Your task to perform on an android device: clear history in the chrome app Image 0: 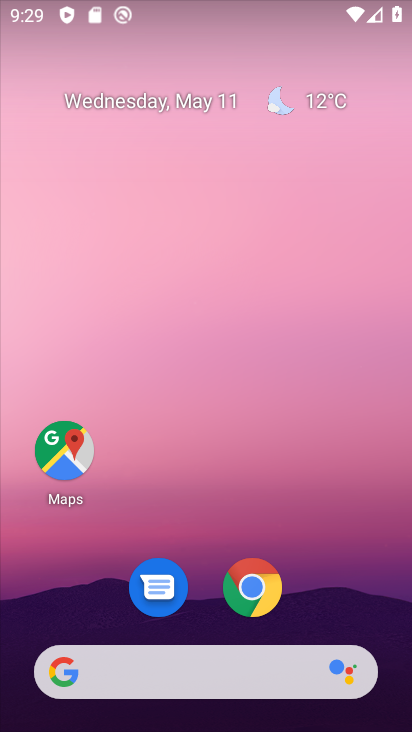
Step 0: click (260, 593)
Your task to perform on an android device: clear history in the chrome app Image 1: 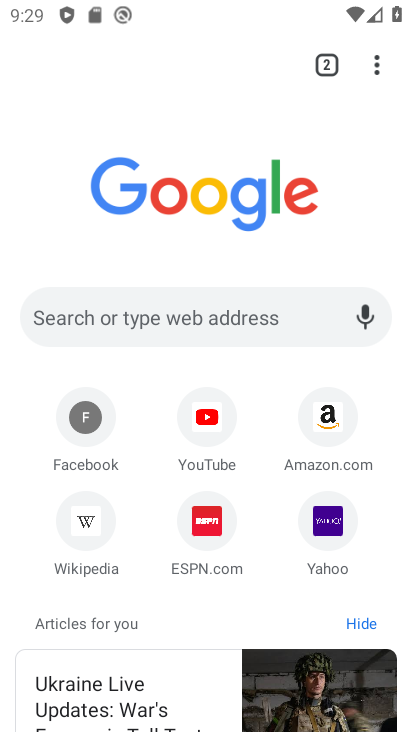
Step 1: click (381, 69)
Your task to perform on an android device: clear history in the chrome app Image 2: 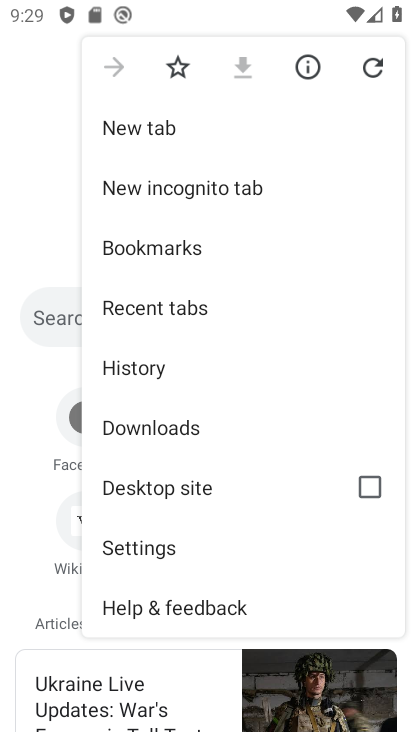
Step 2: click (153, 547)
Your task to perform on an android device: clear history in the chrome app Image 3: 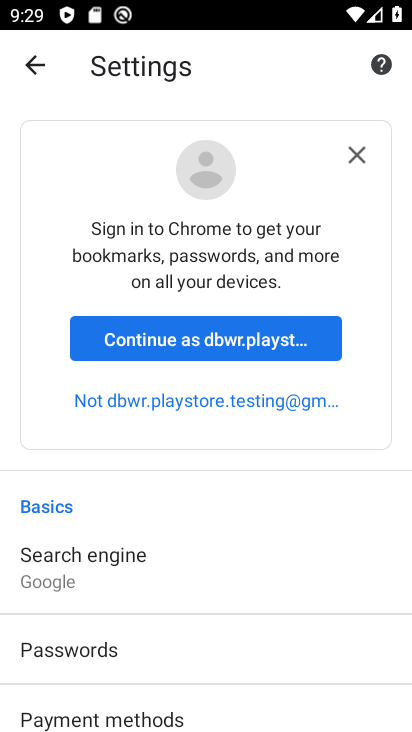
Step 3: drag from (170, 551) to (166, 148)
Your task to perform on an android device: clear history in the chrome app Image 4: 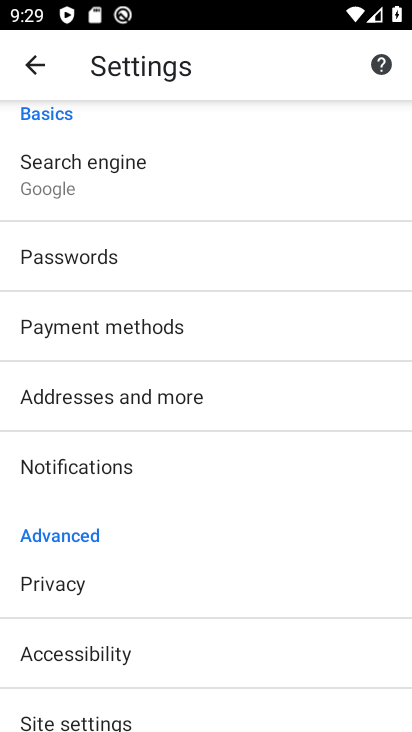
Step 4: drag from (191, 454) to (186, 192)
Your task to perform on an android device: clear history in the chrome app Image 5: 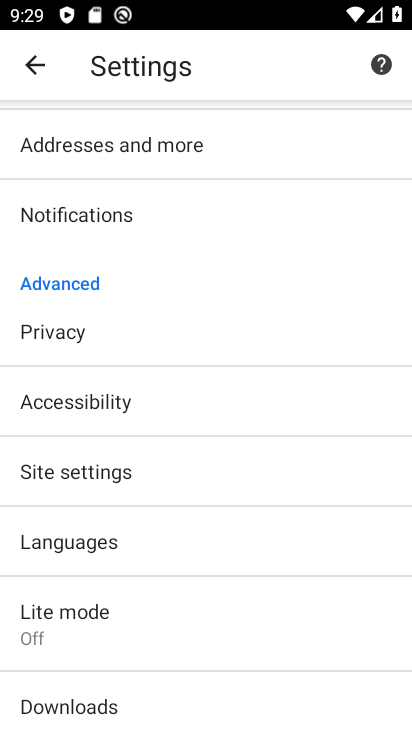
Step 5: click (80, 337)
Your task to perform on an android device: clear history in the chrome app Image 6: 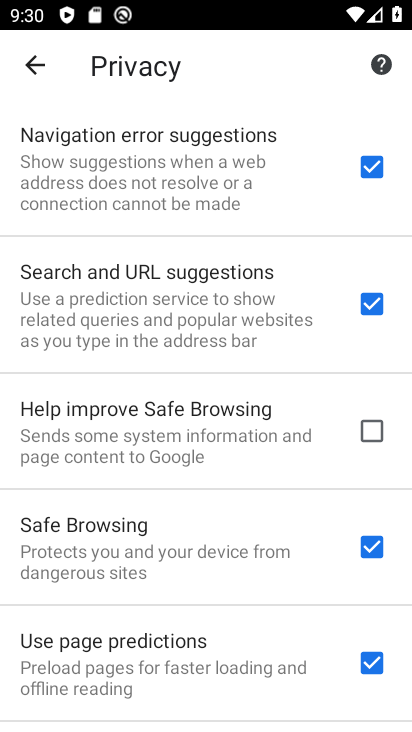
Step 6: drag from (168, 223) to (171, 107)
Your task to perform on an android device: clear history in the chrome app Image 7: 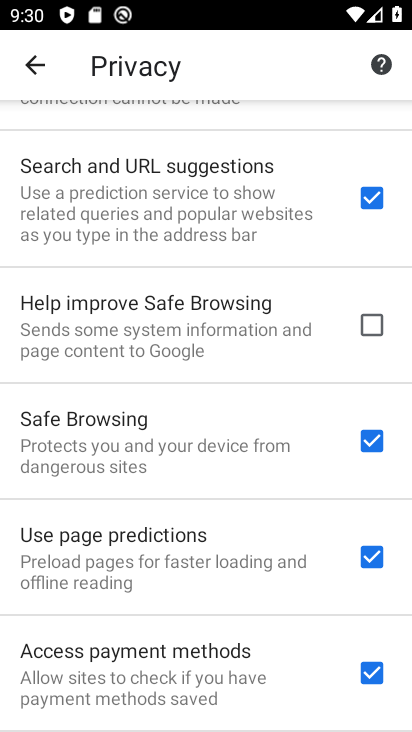
Step 7: drag from (161, 638) to (170, 151)
Your task to perform on an android device: clear history in the chrome app Image 8: 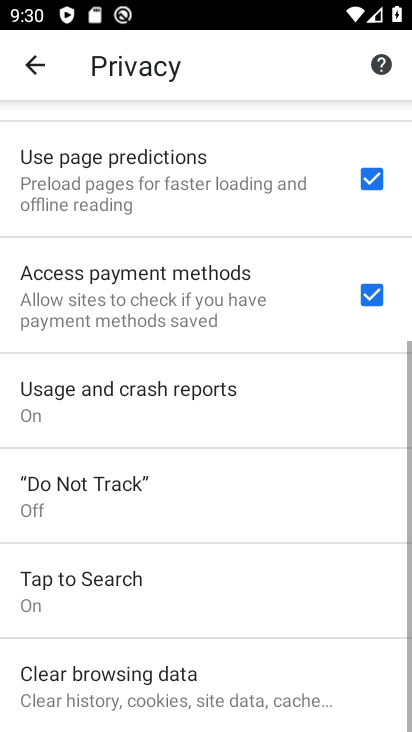
Step 8: drag from (163, 553) to (164, 290)
Your task to perform on an android device: clear history in the chrome app Image 9: 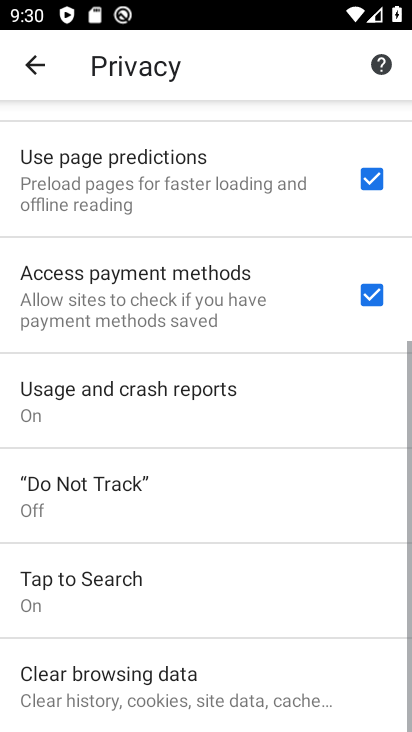
Step 9: click (145, 687)
Your task to perform on an android device: clear history in the chrome app Image 10: 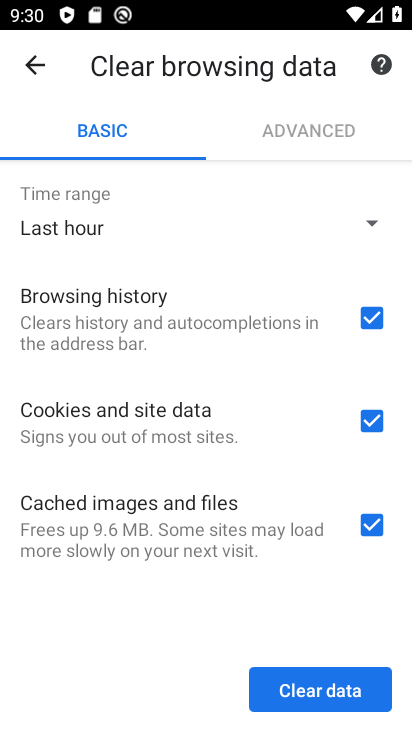
Step 10: click (360, 411)
Your task to perform on an android device: clear history in the chrome app Image 11: 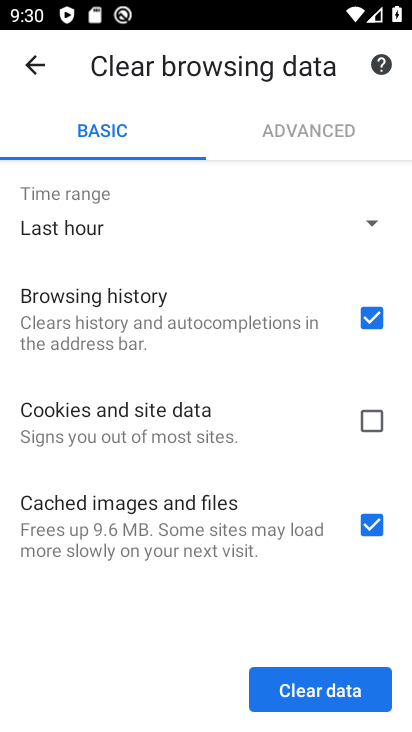
Step 11: click (367, 513)
Your task to perform on an android device: clear history in the chrome app Image 12: 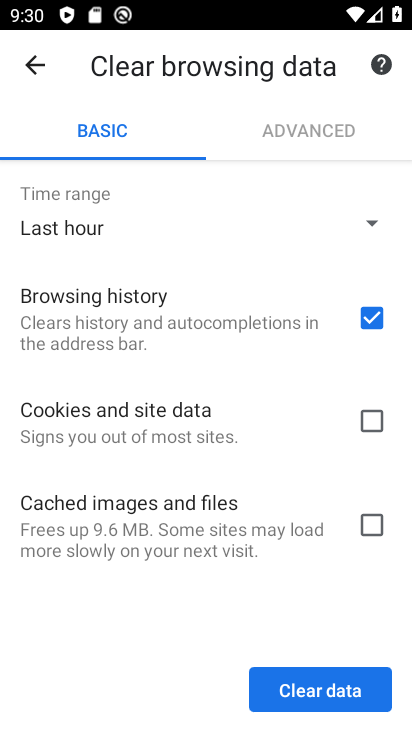
Step 12: click (319, 692)
Your task to perform on an android device: clear history in the chrome app Image 13: 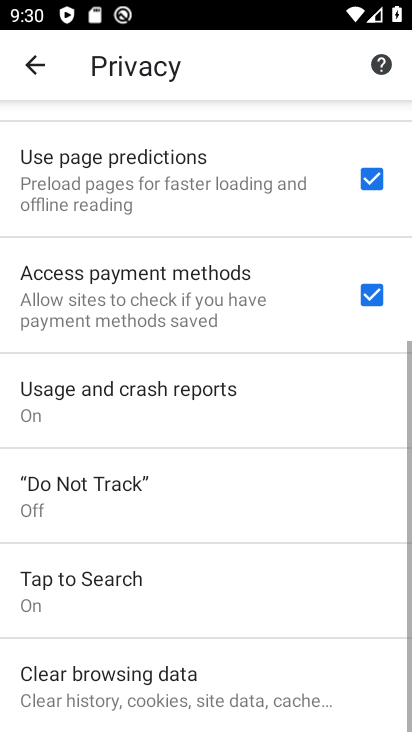
Step 13: task complete